Your task to perform on an android device: turn on javascript in the chrome app Image 0: 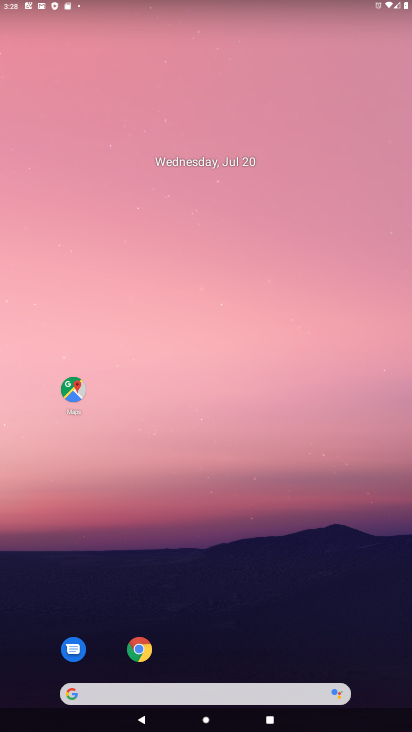
Step 0: click (137, 652)
Your task to perform on an android device: turn on javascript in the chrome app Image 1: 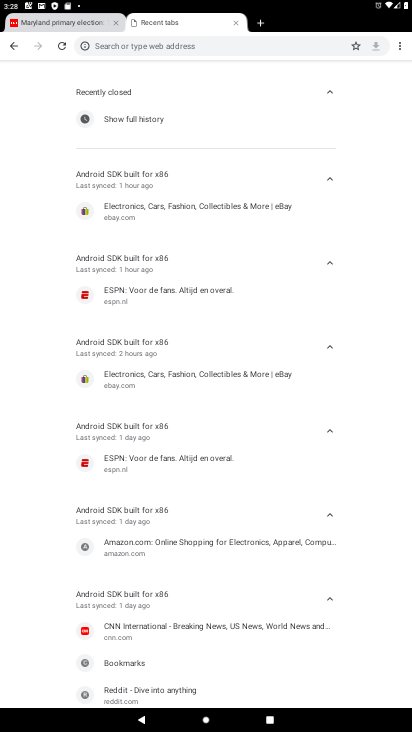
Step 1: click (400, 43)
Your task to perform on an android device: turn on javascript in the chrome app Image 2: 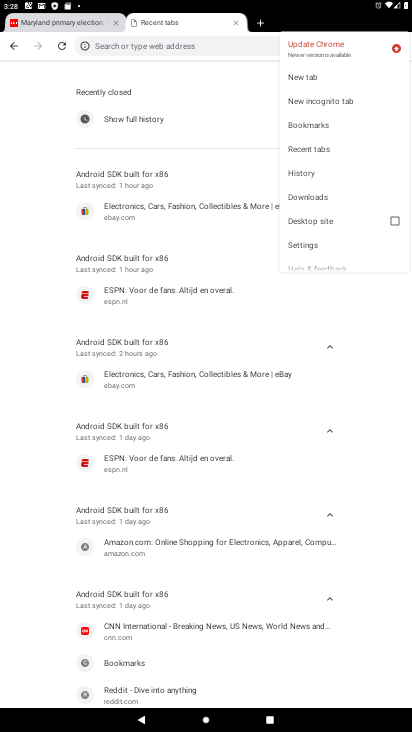
Step 2: click (306, 246)
Your task to perform on an android device: turn on javascript in the chrome app Image 3: 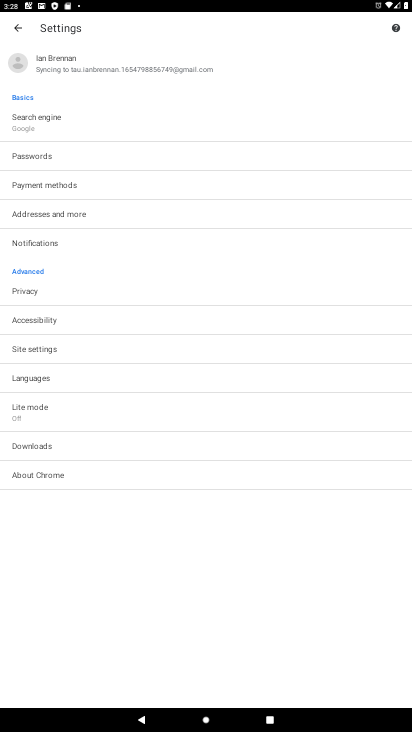
Step 3: click (24, 351)
Your task to perform on an android device: turn on javascript in the chrome app Image 4: 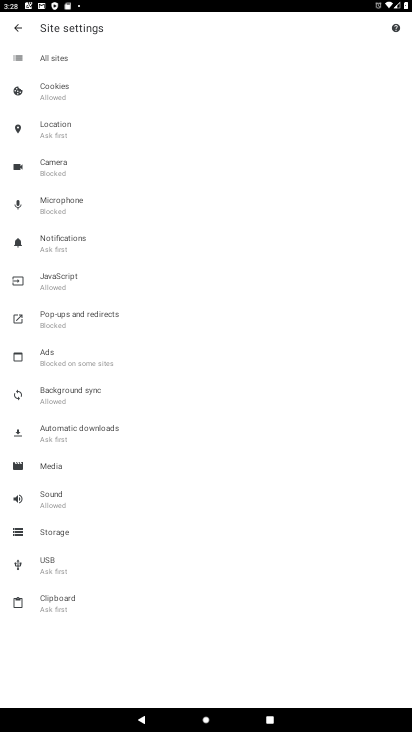
Step 4: click (59, 279)
Your task to perform on an android device: turn on javascript in the chrome app Image 5: 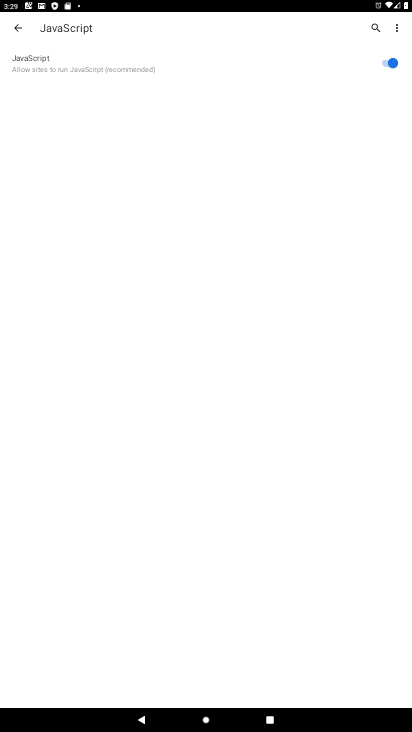
Step 5: task complete